Your task to perform on an android device: open chrome privacy settings Image 0: 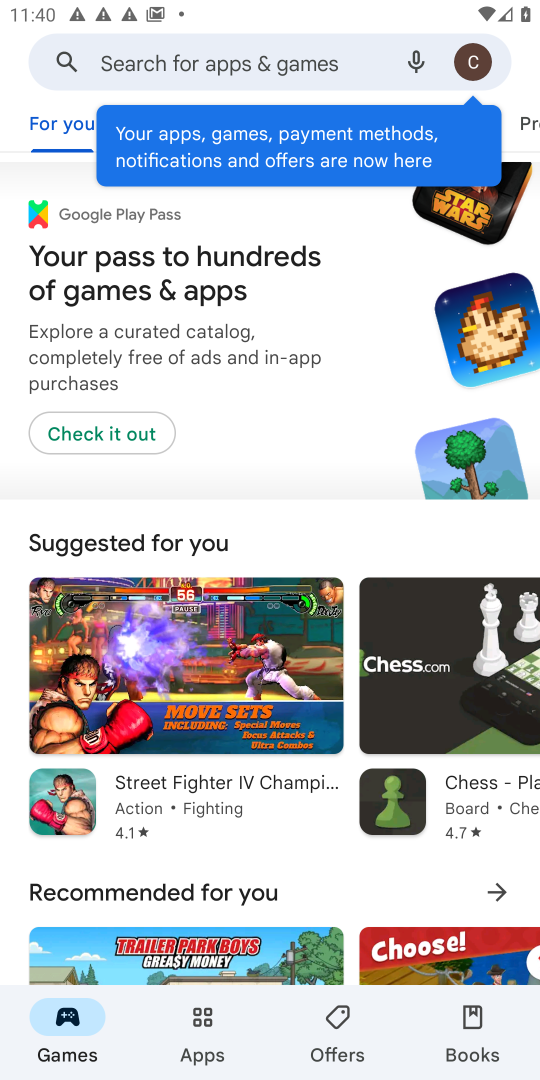
Step 0: press home button
Your task to perform on an android device: open chrome privacy settings Image 1: 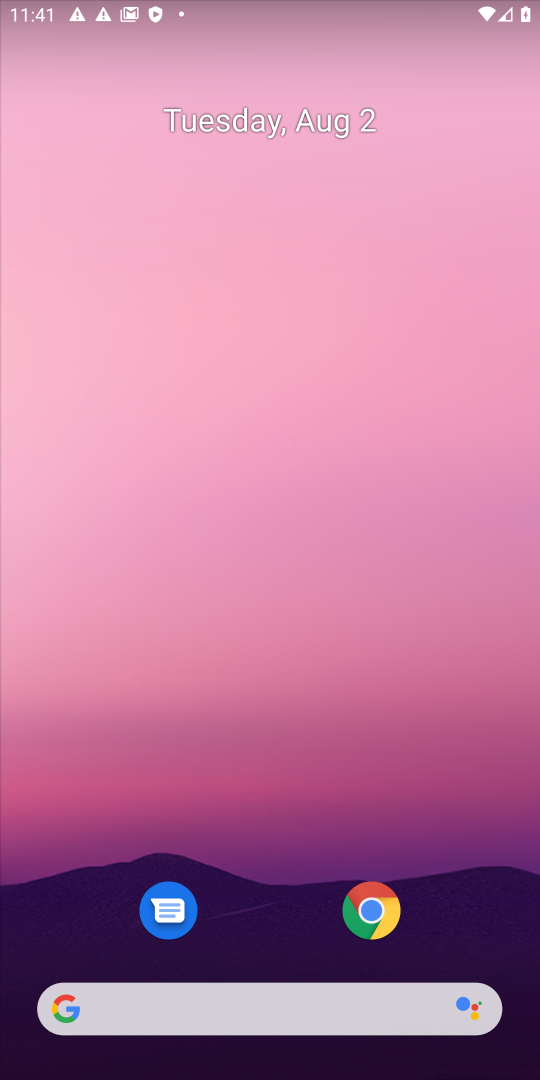
Step 1: click (360, 912)
Your task to perform on an android device: open chrome privacy settings Image 2: 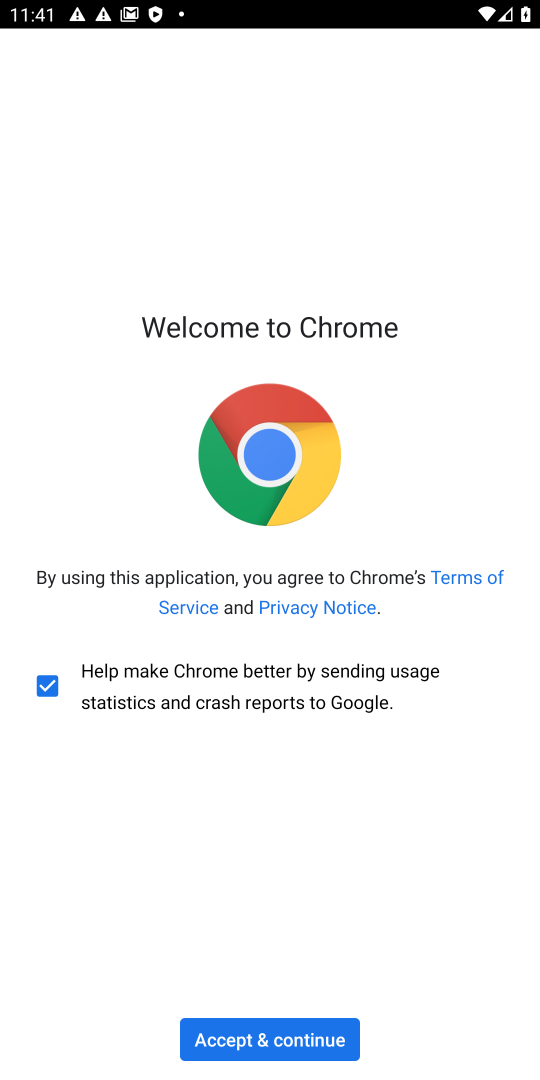
Step 2: click (266, 1040)
Your task to perform on an android device: open chrome privacy settings Image 3: 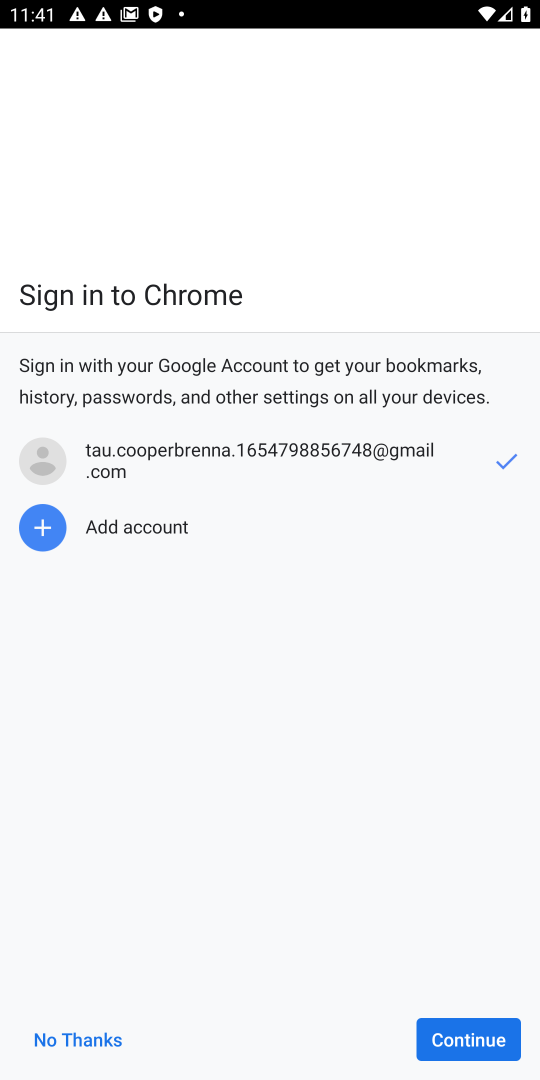
Step 3: click (62, 1031)
Your task to perform on an android device: open chrome privacy settings Image 4: 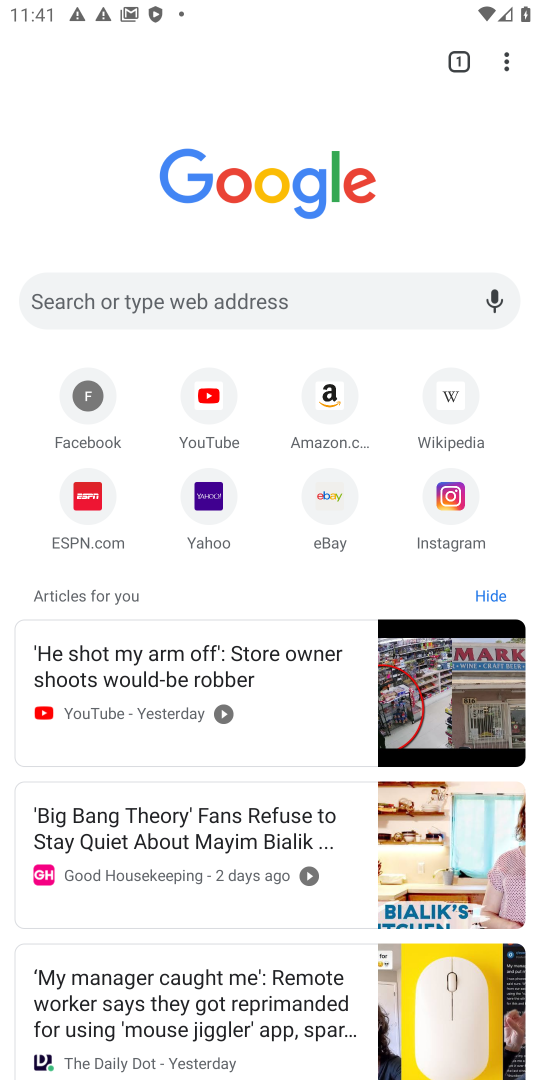
Step 4: drag from (507, 65) to (302, 516)
Your task to perform on an android device: open chrome privacy settings Image 5: 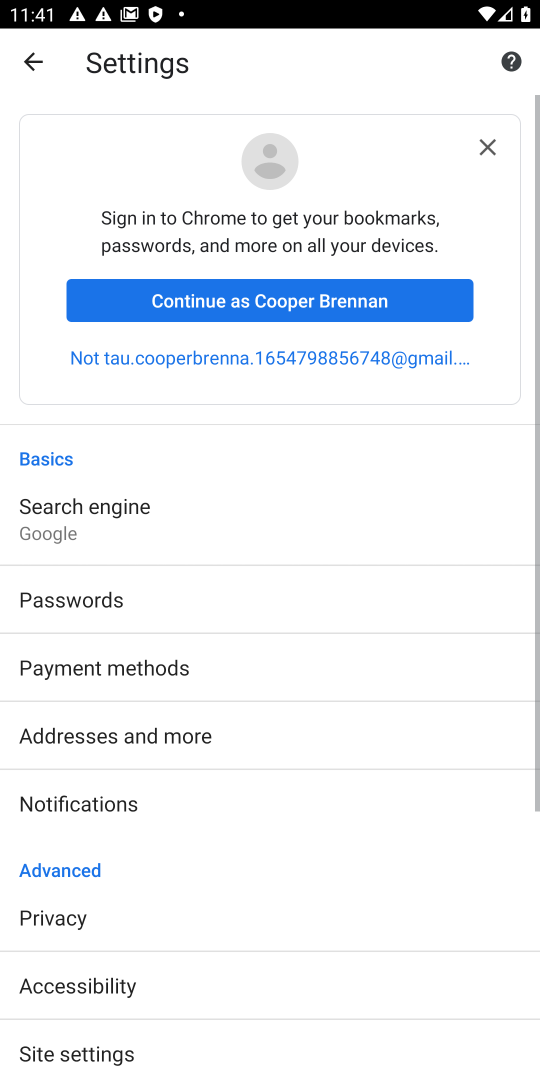
Step 5: click (72, 918)
Your task to perform on an android device: open chrome privacy settings Image 6: 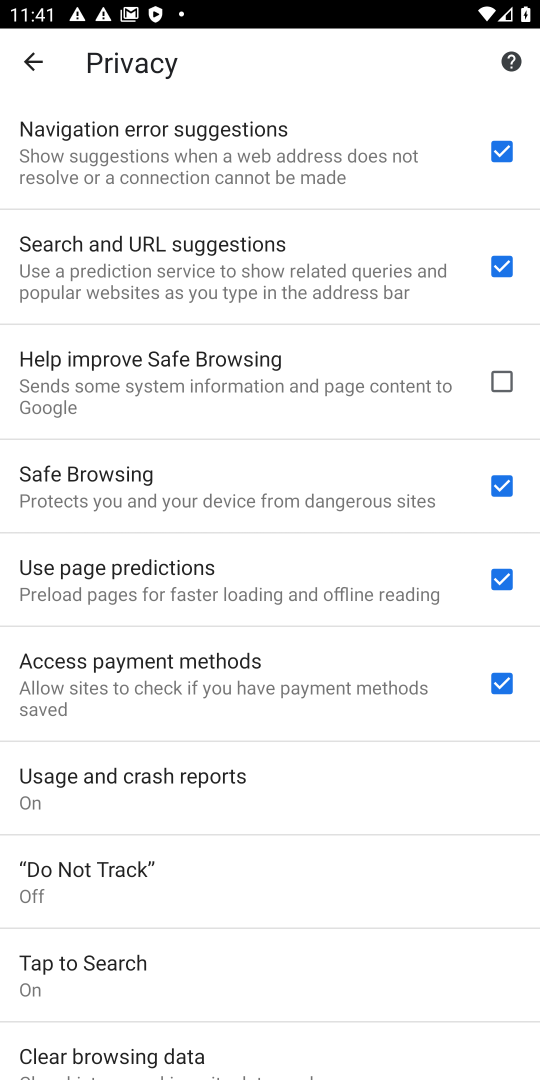
Step 6: task complete